Your task to perform on an android device: turn on sleep mode Image 0: 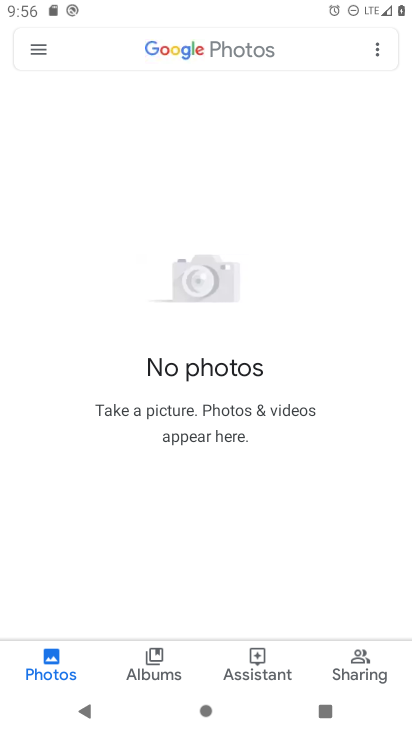
Step 0: drag from (170, 661) to (174, 335)
Your task to perform on an android device: turn on sleep mode Image 1: 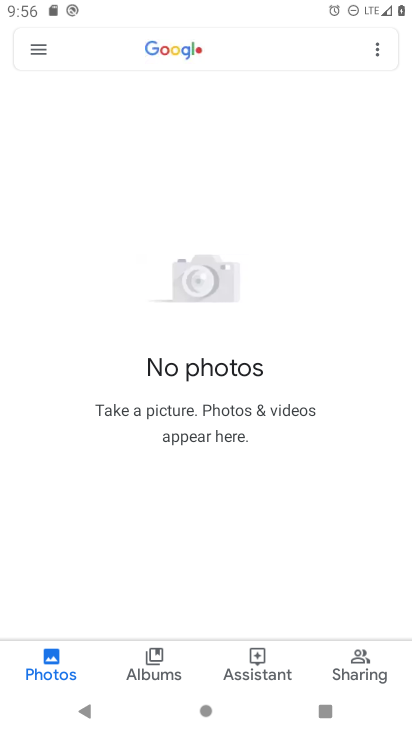
Step 1: press home button
Your task to perform on an android device: turn on sleep mode Image 2: 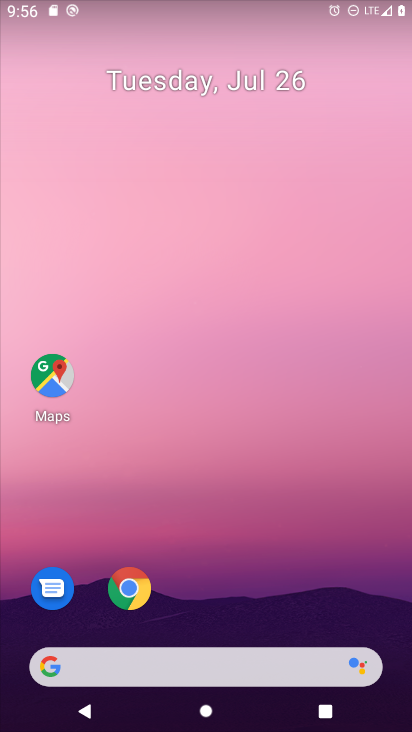
Step 2: drag from (237, 633) to (273, 192)
Your task to perform on an android device: turn on sleep mode Image 3: 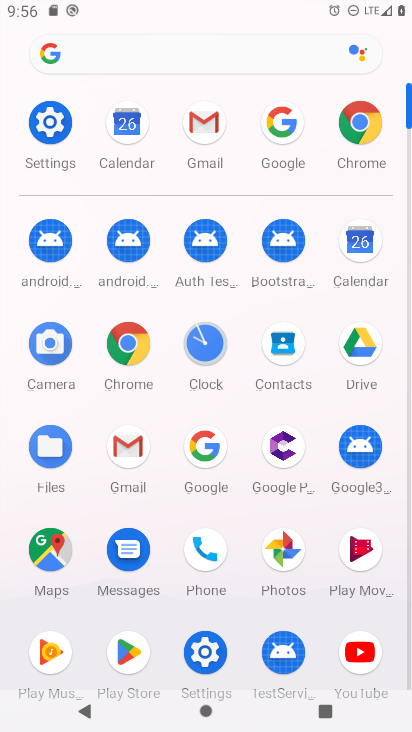
Step 3: click (70, 157)
Your task to perform on an android device: turn on sleep mode Image 4: 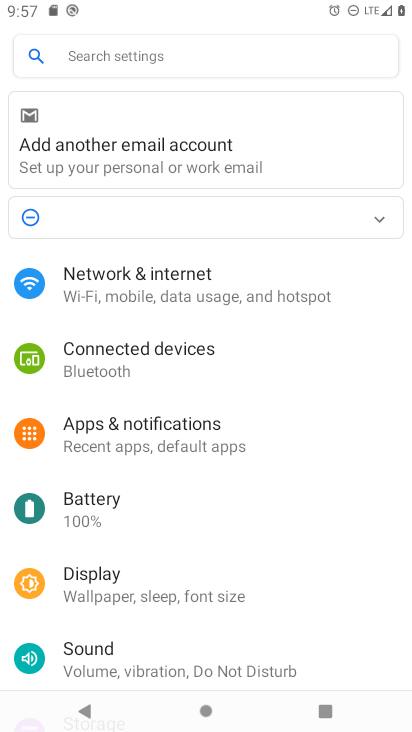
Step 4: click (157, 593)
Your task to perform on an android device: turn on sleep mode Image 5: 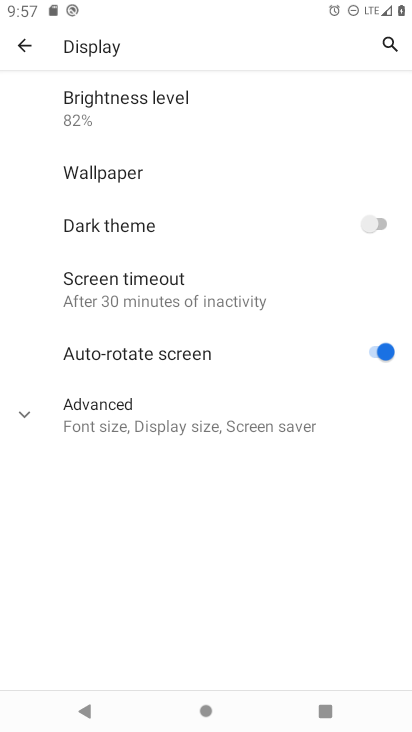
Step 5: click (200, 428)
Your task to perform on an android device: turn on sleep mode Image 6: 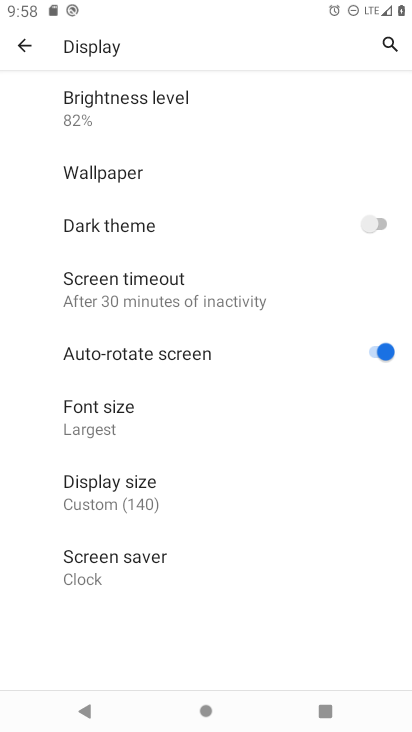
Step 6: task complete